Your task to perform on an android device: check the backup settings in the google photos Image 0: 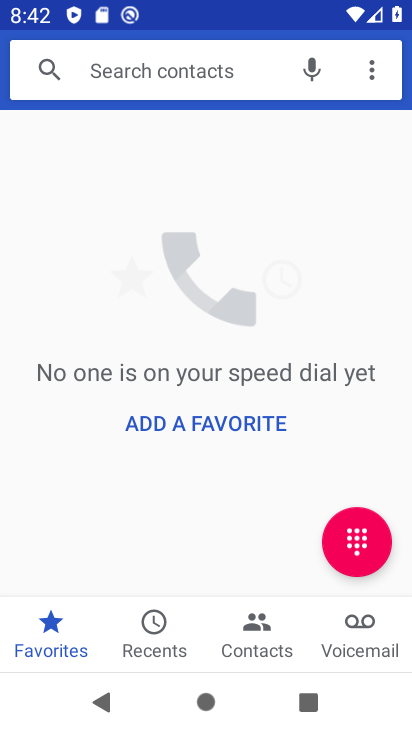
Step 0: press home button
Your task to perform on an android device: check the backup settings in the google photos Image 1: 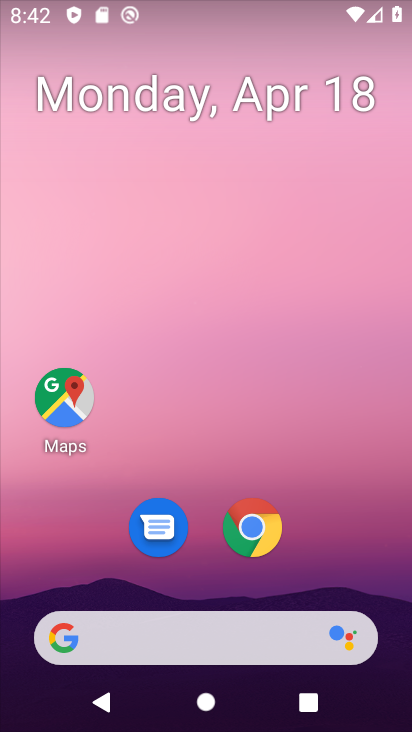
Step 1: drag from (340, 574) to (349, 142)
Your task to perform on an android device: check the backup settings in the google photos Image 2: 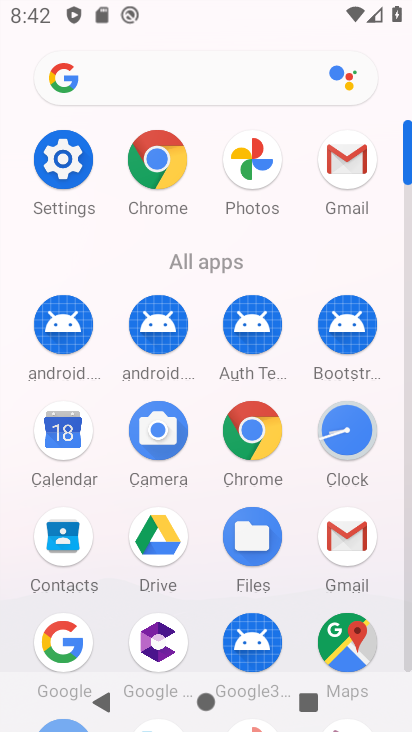
Step 2: click (254, 154)
Your task to perform on an android device: check the backup settings in the google photos Image 3: 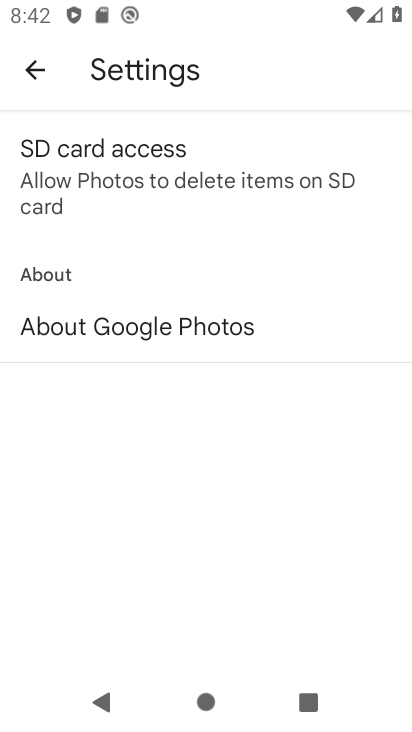
Step 3: click (33, 66)
Your task to perform on an android device: check the backup settings in the google photos Image 4: 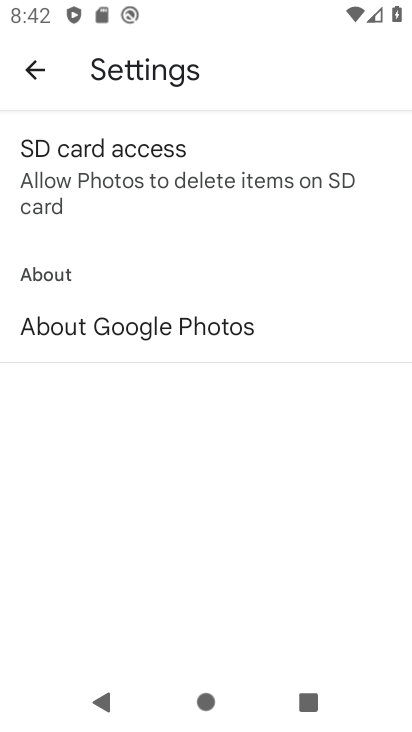
Step 4: press back button
Your task to perform on an android device: check the backup settings in the google photos Image 5: 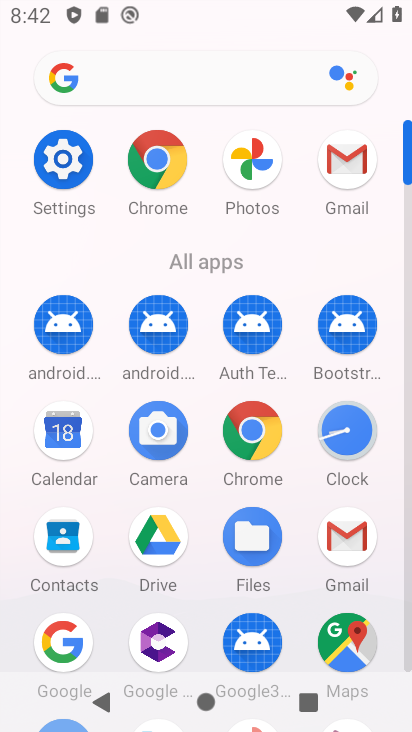
Step 5: click (248, 150)
Your task to perform on an android device: check the backup settings in the google photos Image 6: 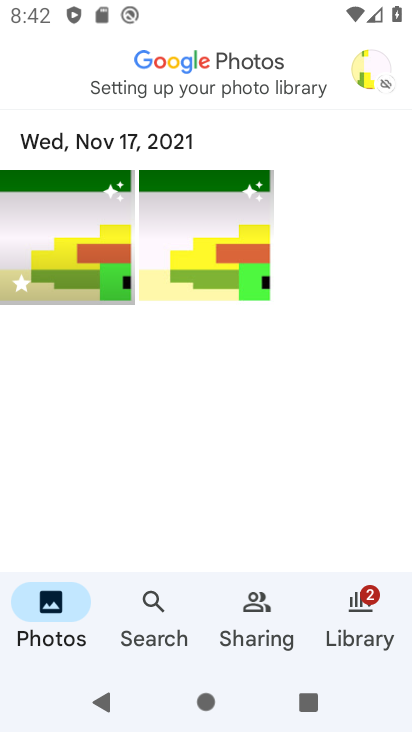
Step 6: click (367, 75)
Your task to perform on an android device: check the backup settings in the google photos Image 7: 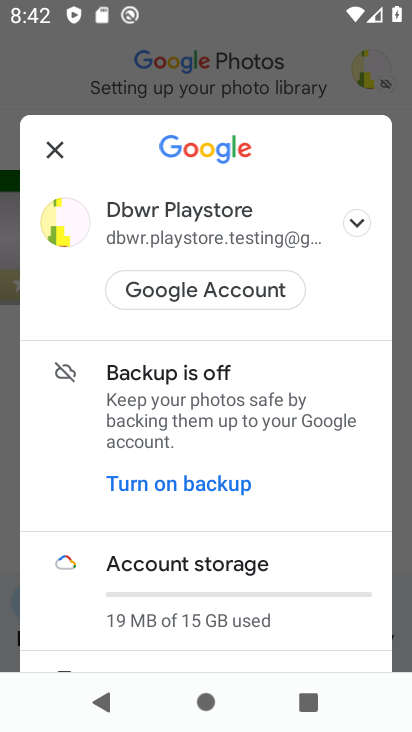
Step 7: click (141, 375)
Your task to perform on an android device: check the backup settings in the google photos Image 8: 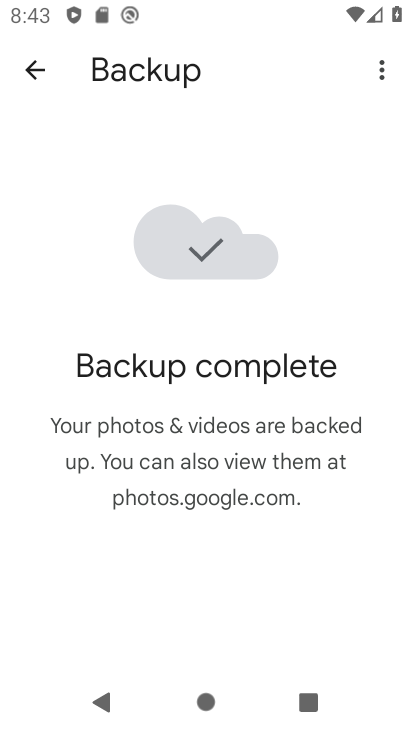
Step 8: click (380, 68)
Your task to perform on an android device: check the backup settings in the google photos Image 9: 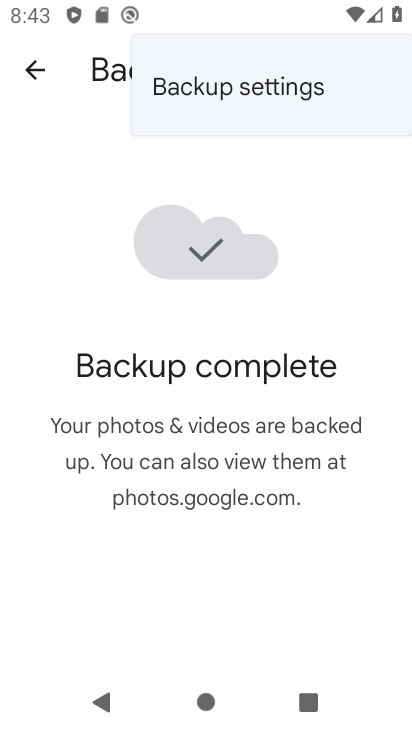
Step 9: click (261, 88)
Your task to perform on an android device: check the backup settings in the google photos Image 10: 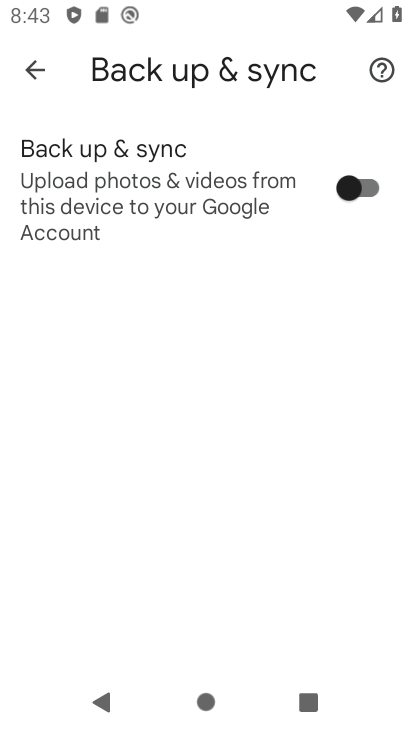
Step 10: task complete